Your task to perform on an android device: move an email to a new category in the gmail app Image 0: 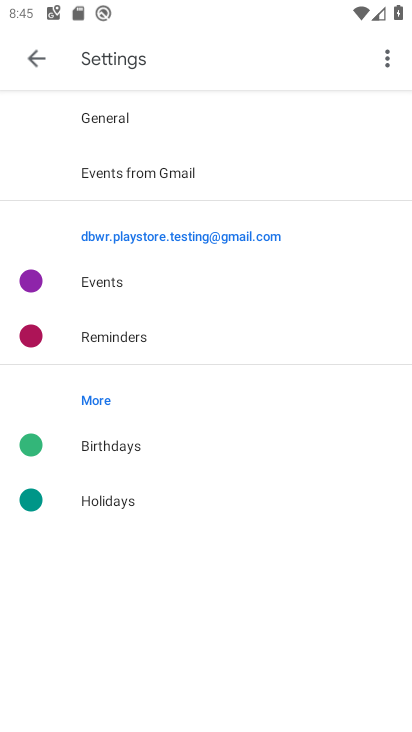
Step 0: click (32, 62)
Your task to perform on an android device: move an email to a new category in the gmail app Image 1: 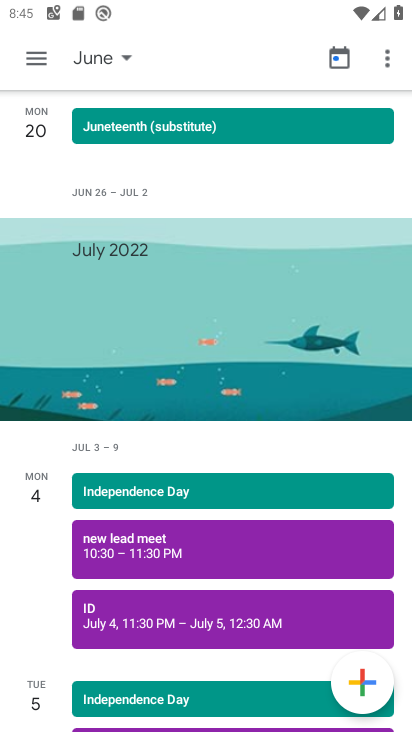
Step 1: press back button
Your task to perform on an android device: move an email to a new category in the gmail app Image 2: 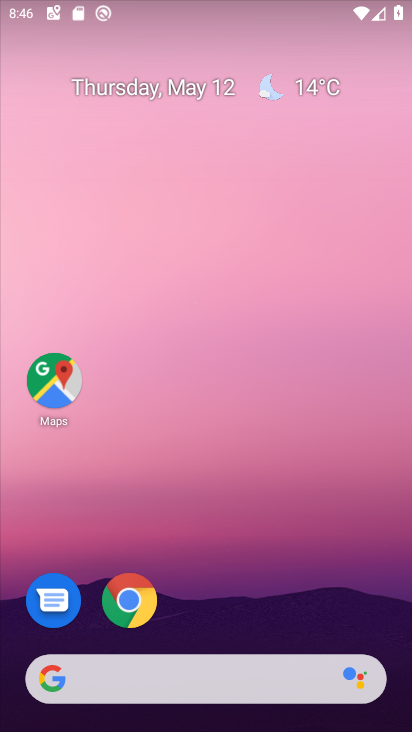
Step 2: drag from (269, 531) to (101, 13)
Your task to perform on an android device: move an email to a new category in the gmail app Image 3: 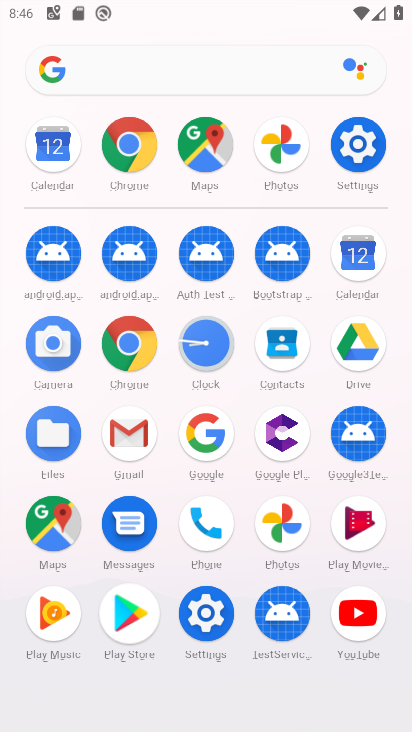
Step 3: click (119, 423)
Your task to perform on an android device: move an email to a new category in the gmail app Image 4: 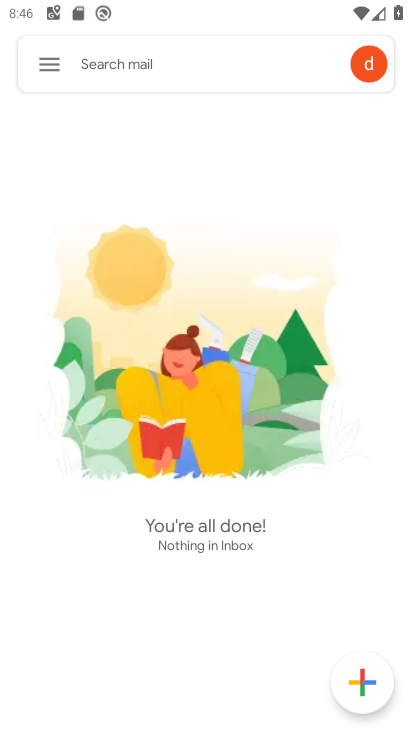
Step 4: click (43, 73)
Your task to perform on an android device: move an email to a new category in the gmail app Image 5: 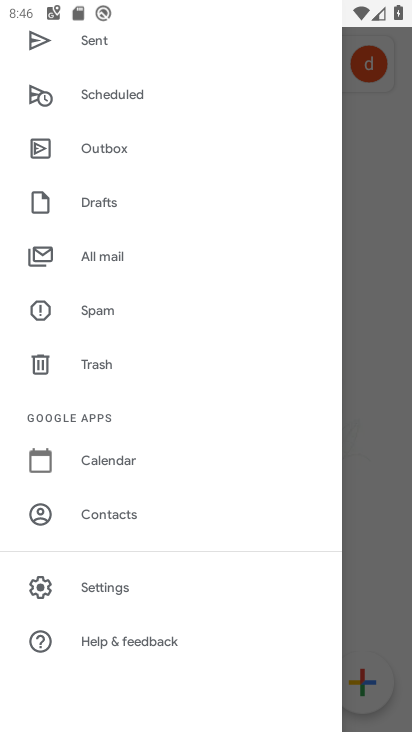
Step 5: click (102, 578)
Your task to perform on an android device: move an email to a new category in the gmail app Image 6: 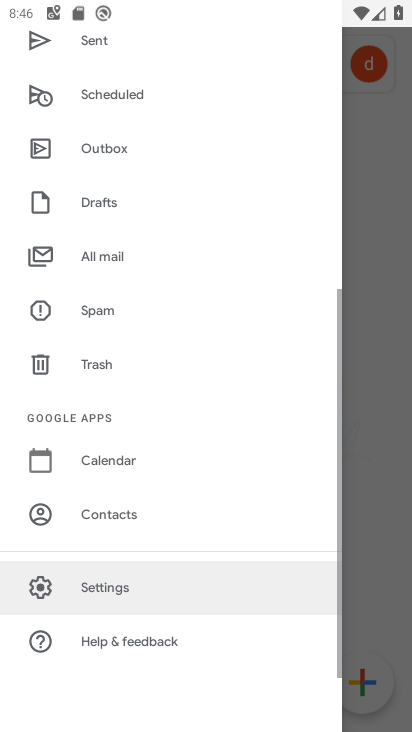
Step 6: click (103, 580)
Your task to perform on an android device: move an email to a new category in the gmail app Image 7: 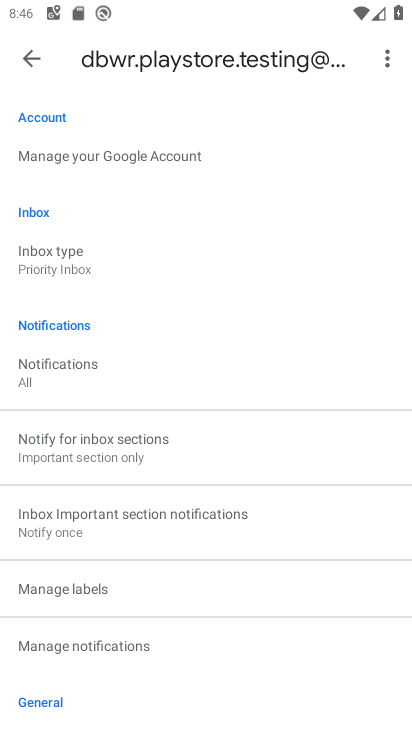
Step 7: click (26, 52)
Your task to perform on an android device: move an email to a new category in the gmail app Image 8: 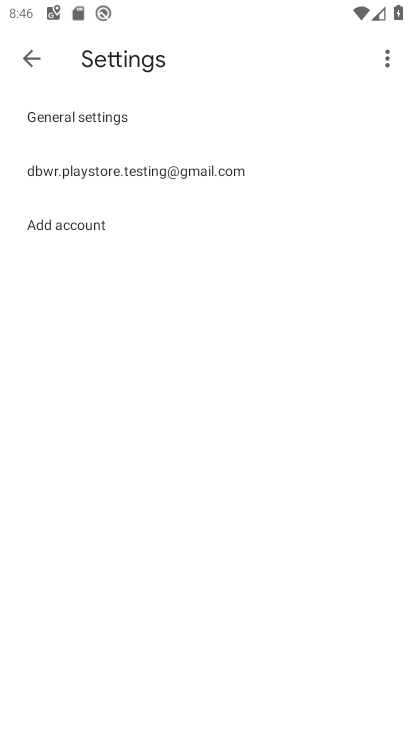
Step 8: click (28, 51)
Your task to perform on an android device: move an email to a new category in the gmail app Image 9: 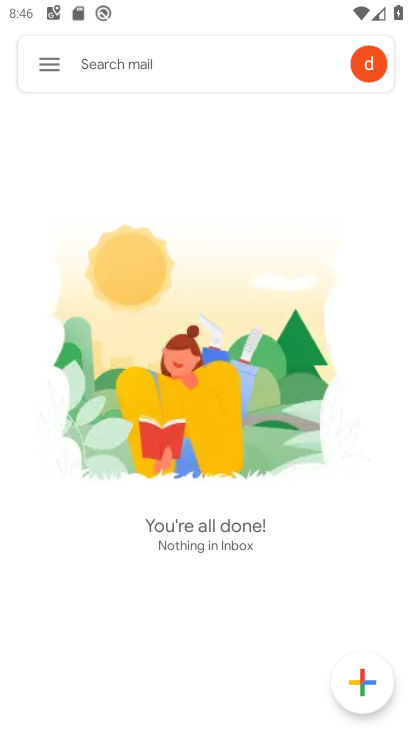
Step 9: click (34, 65)
Your task to perform on an android device: move an email to a new category in the gmail app Image 10: 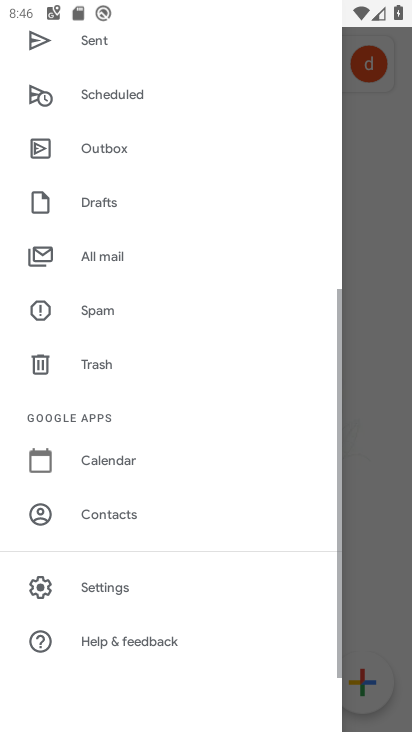
Step 10: click (45, 59)
Your task to perform on an android device: move an email to a new category in the gmail app Image 11: 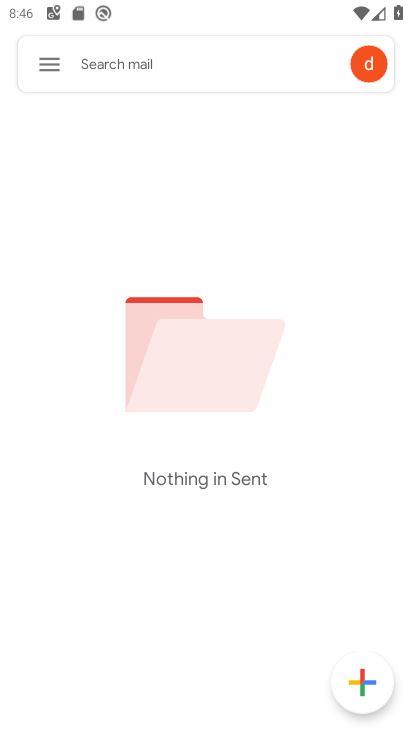
Step 11: click (48, 65)
Your task to perform on an android device: move an email to a new category in the gmail app Image 12: 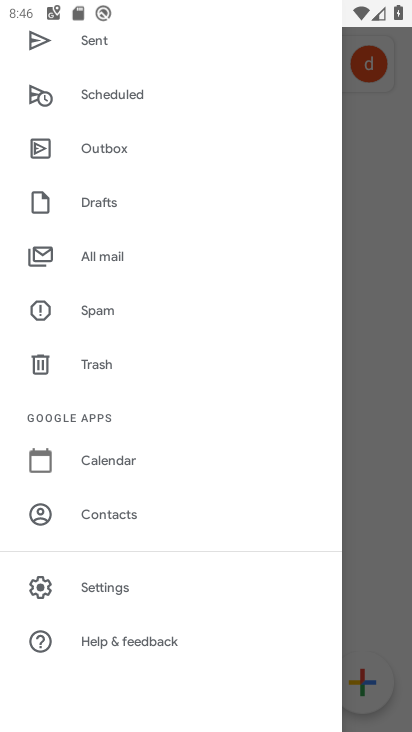
Step 12: click (95, 261)
Your task to perform on an android device: move an email to a new category in the gmail app Image 13: 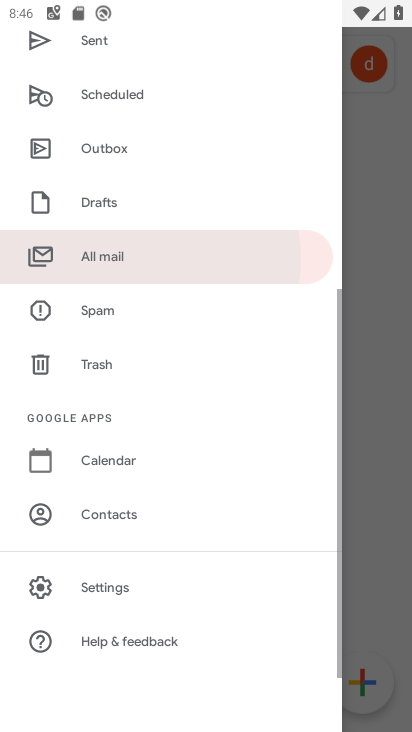
Step 13: click (95, 261)
Your task to perform on an android device: move an email to a new category in the gmail app Image 14: 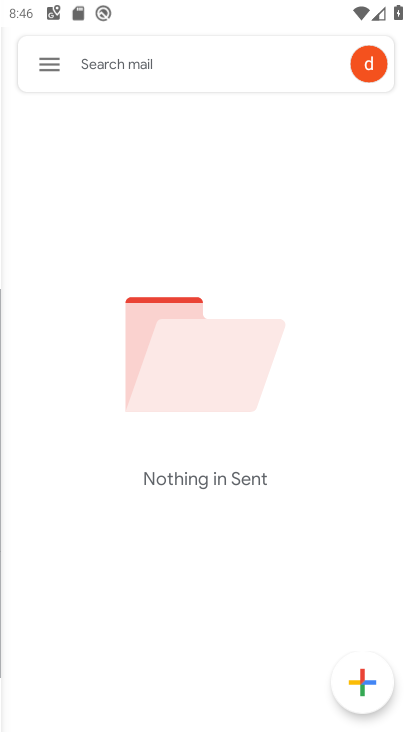
Step 14: click (95, 261)
Your task to perform on an android device: move an email to a new category in the gmail app Image 15: 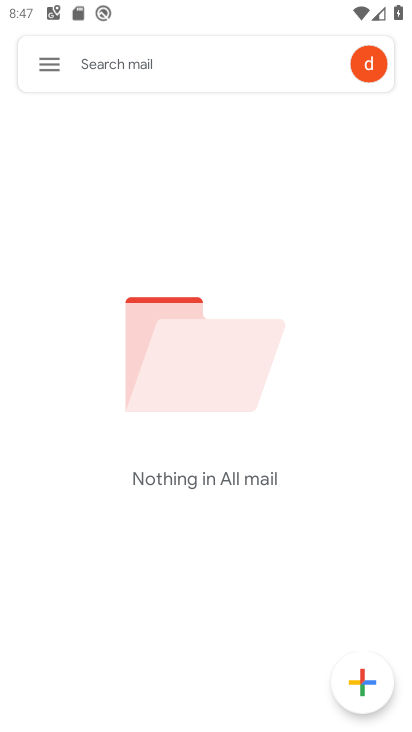
Step 15: task complete